Your task to perform on an android device: turn off airplane mode Image 0: 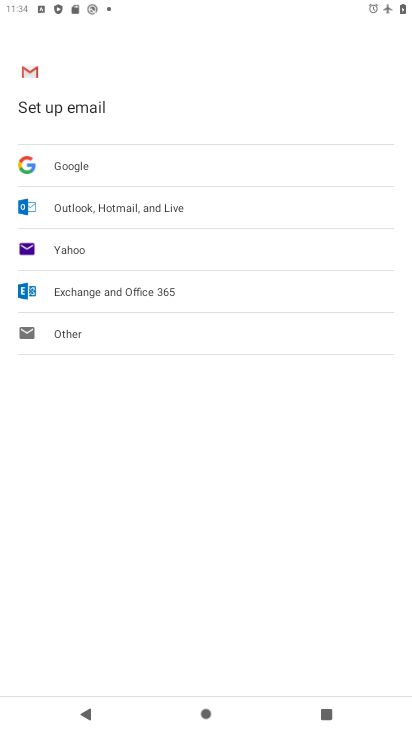
Step 0: press home button
Your task to perform on an android device: turn off airplane mode Image 1: 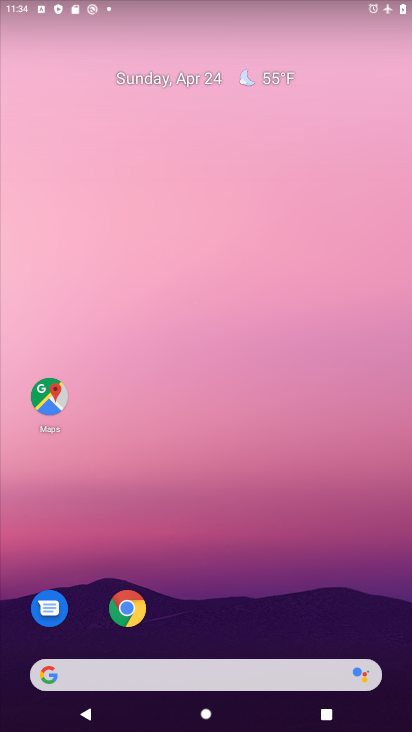
Step 1: drag from (374, 629) to (308, 42)
Your task to perform on an android device: turn off airplane mode Image 2: 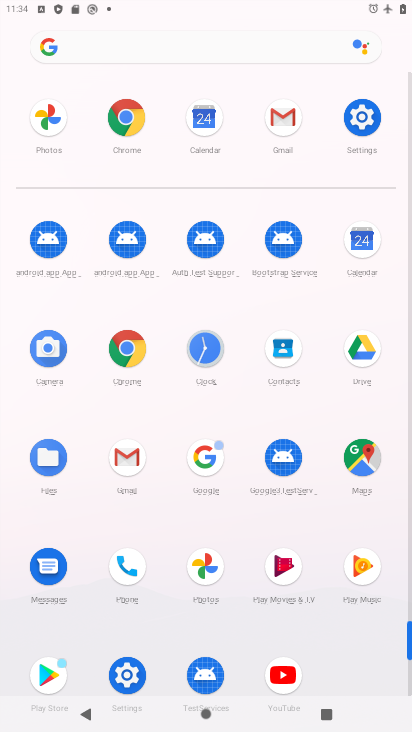
Step 2: click (409, 682)
Your task to perform on an android device: turn off airplane mode Image 3: 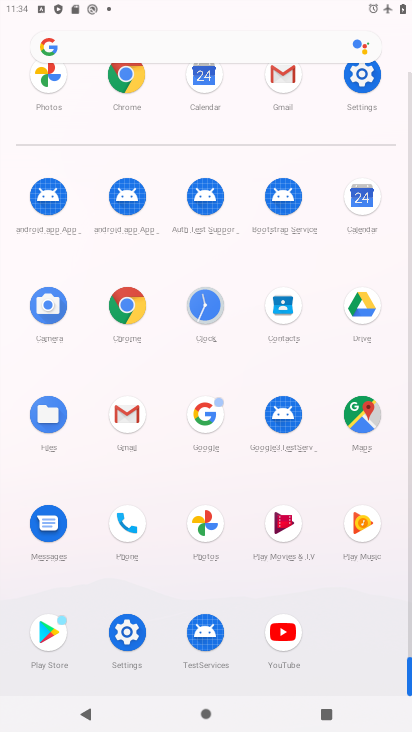
Step 3: click (124, 631)
Your task to perform on an android device: turn off airplane mode Image 4: 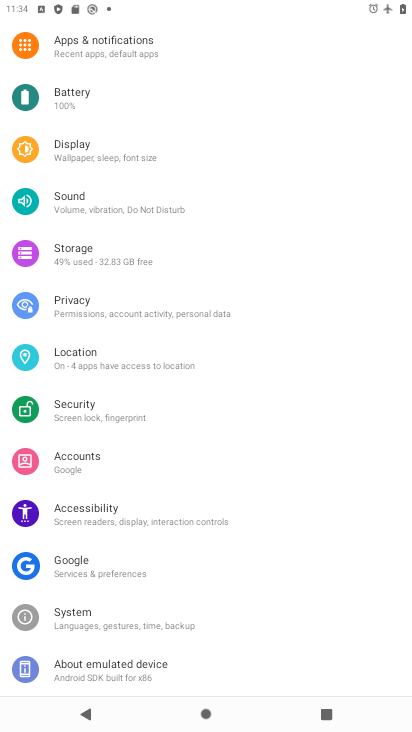
Step 4: drag from (339, 161) to (334, 390)
Your task to perform on an android device: turn off airplane mode Image 5: 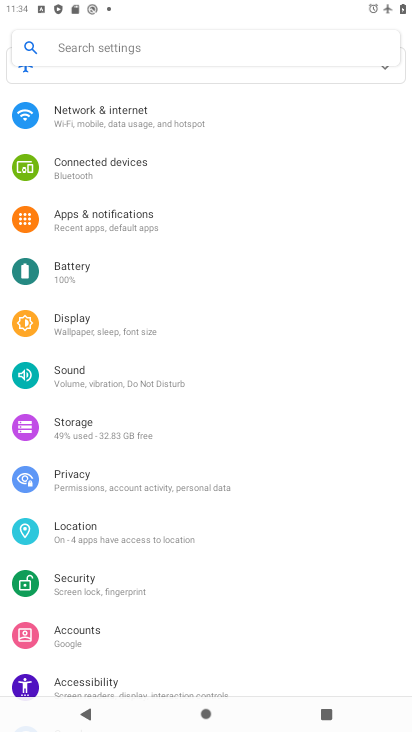
Step 5: click (95, 117)
Your task to perform on an android device: turn off airplane mode Image 6: 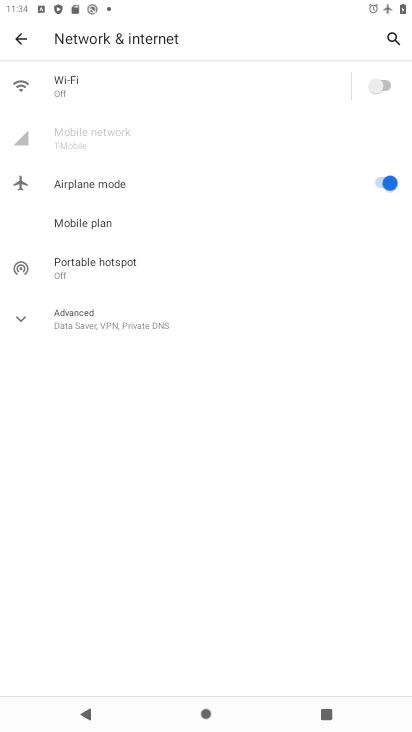
Step 6: click (374, 181)
Your task to perform on an android device: turn off airplane mode Image 7: 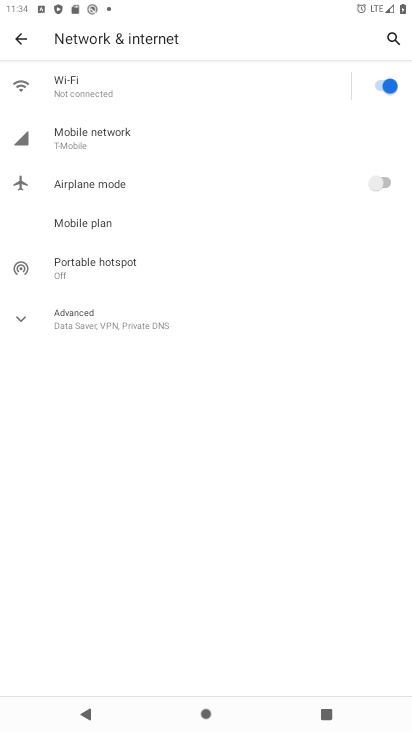
Step 7: task complete